Your task to perform on an android device: Go to ESPN.com Image 0: 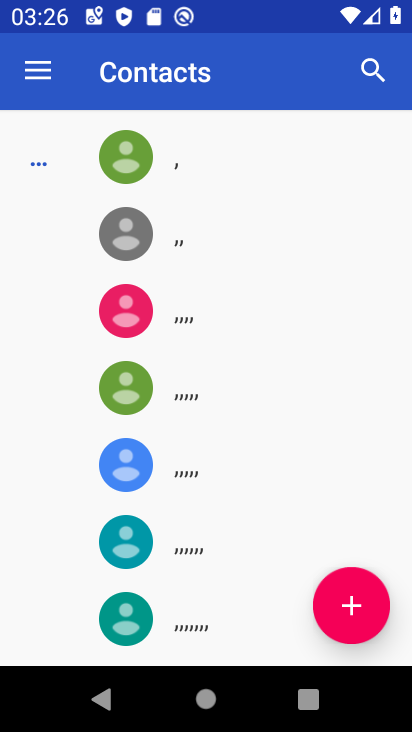
Step 0: press home button
Your task to perform on an android device: Go to ESPN.com Image 1: 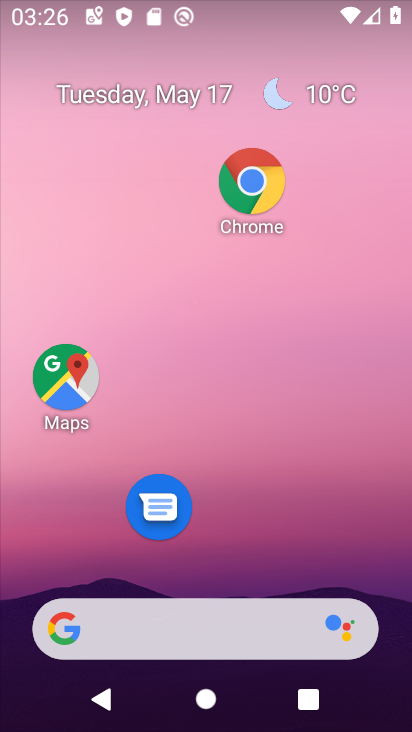
Step 1: click (250, 629)
Your task to perform on an android device: Go to ESPN.com Image 2: 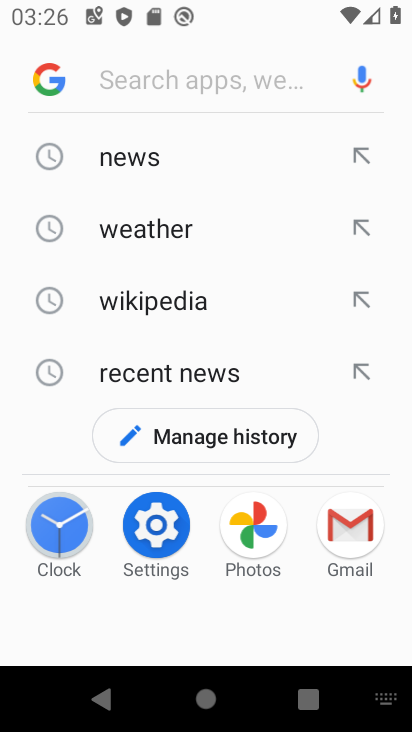
Step 2: type "espn"
Your task to perform on an android device: Go to ESPN.com Image 3: 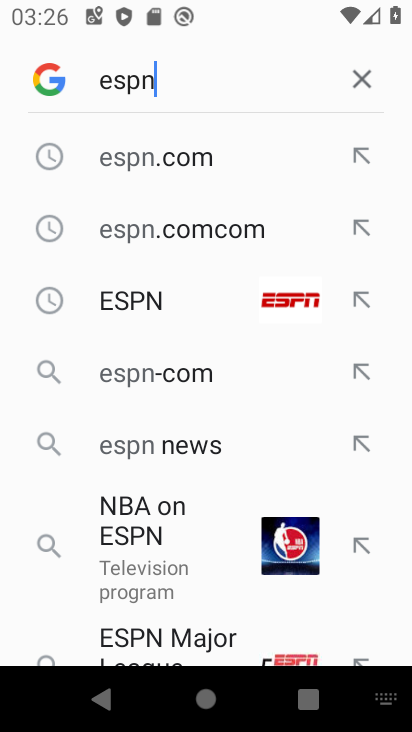
Step 3: click (221, 166)
Your task to perform on an android device: Go to ESPN.com Image 4: 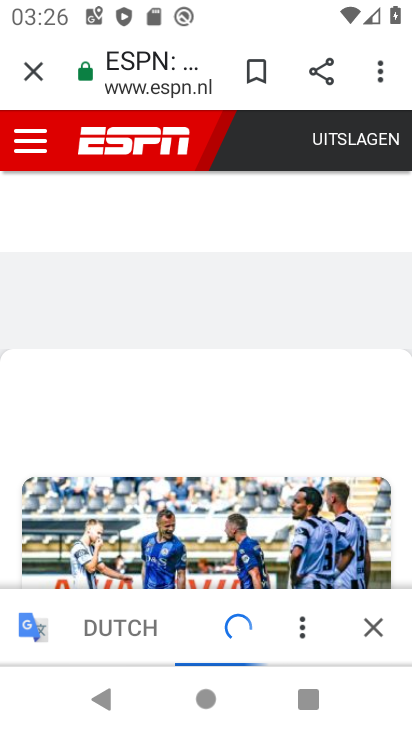
Step 4: task complete